Your task to perform on an android device: open app "Grab" Image 0: 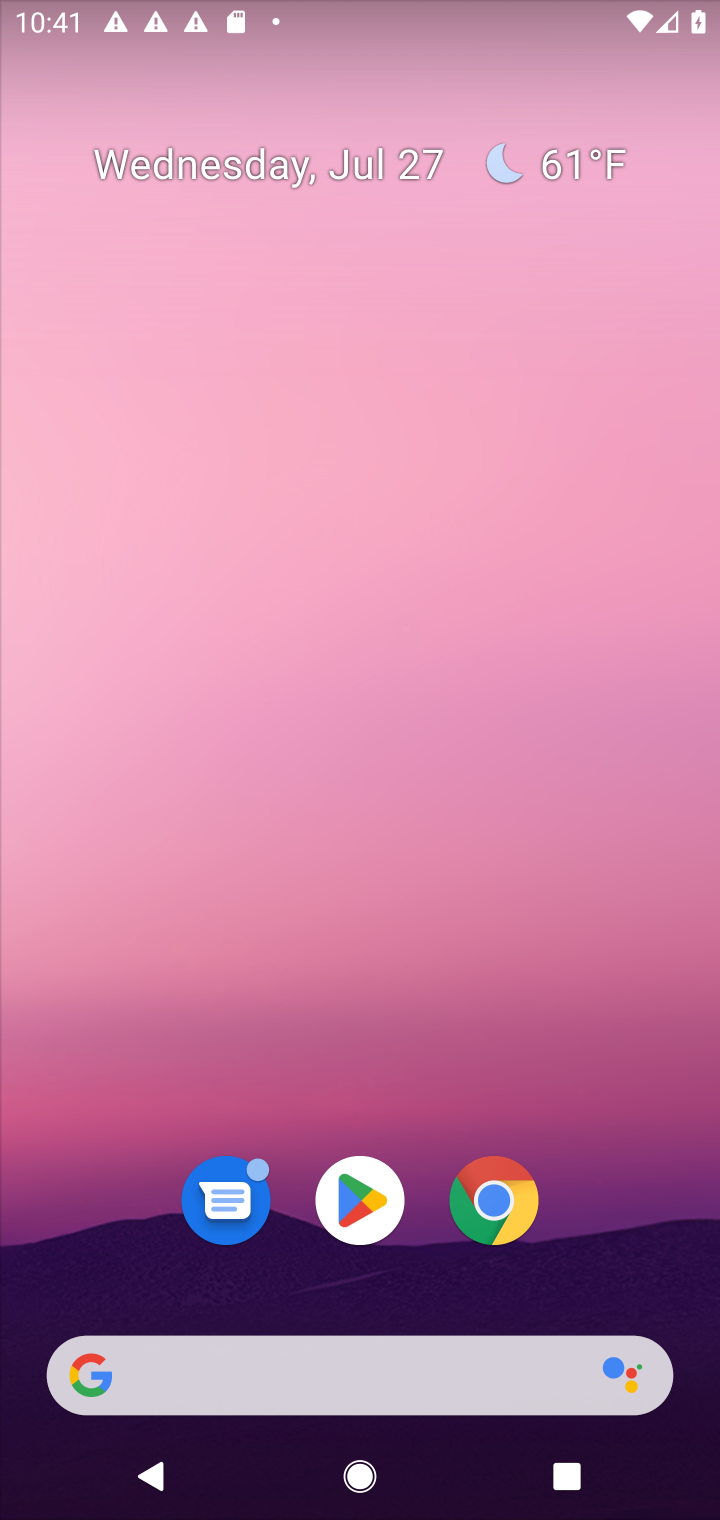
Step 0: click (340, 1197)
Your task to perform on an android device: open app "Grab" Image 1: 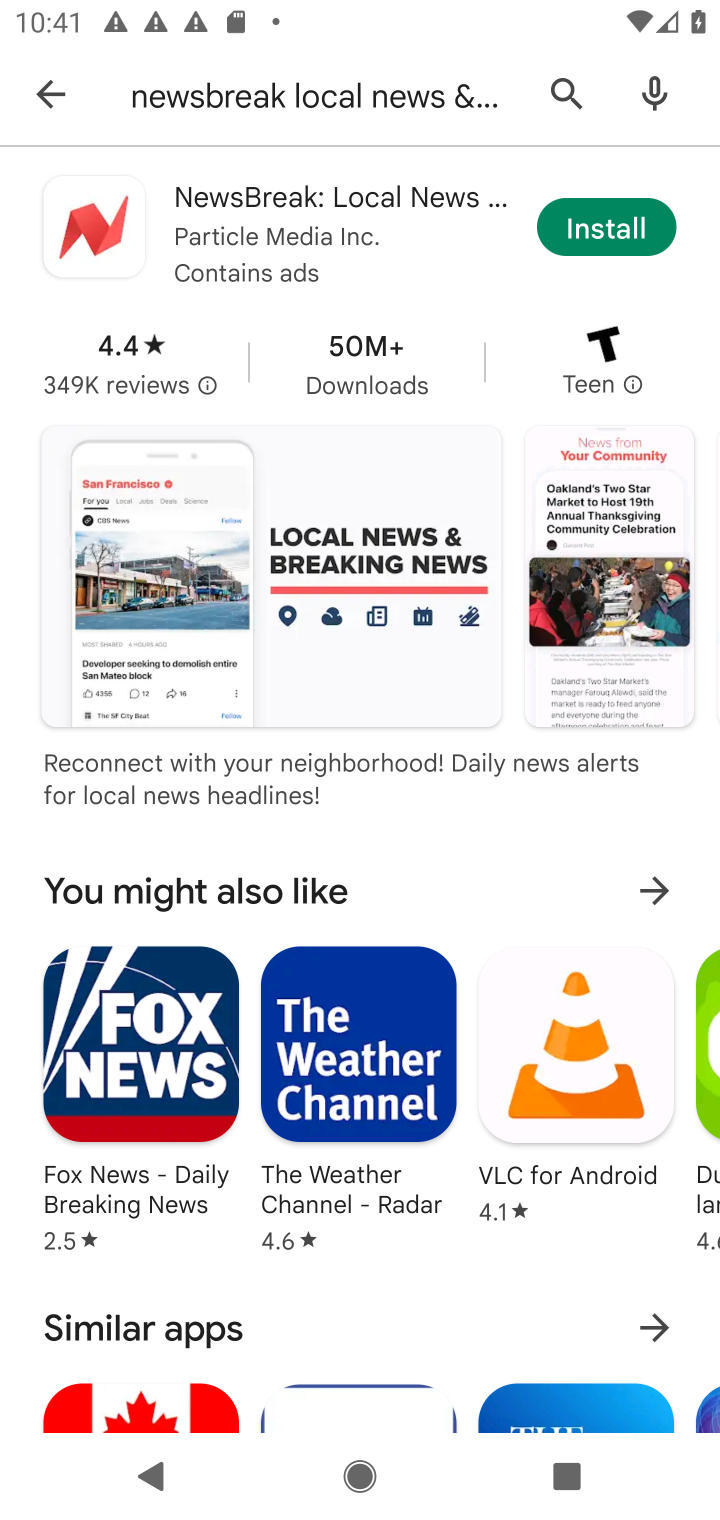
Step 1: click (549, 91)
Your task to perform on an android device: open app "Grab" Image 2: 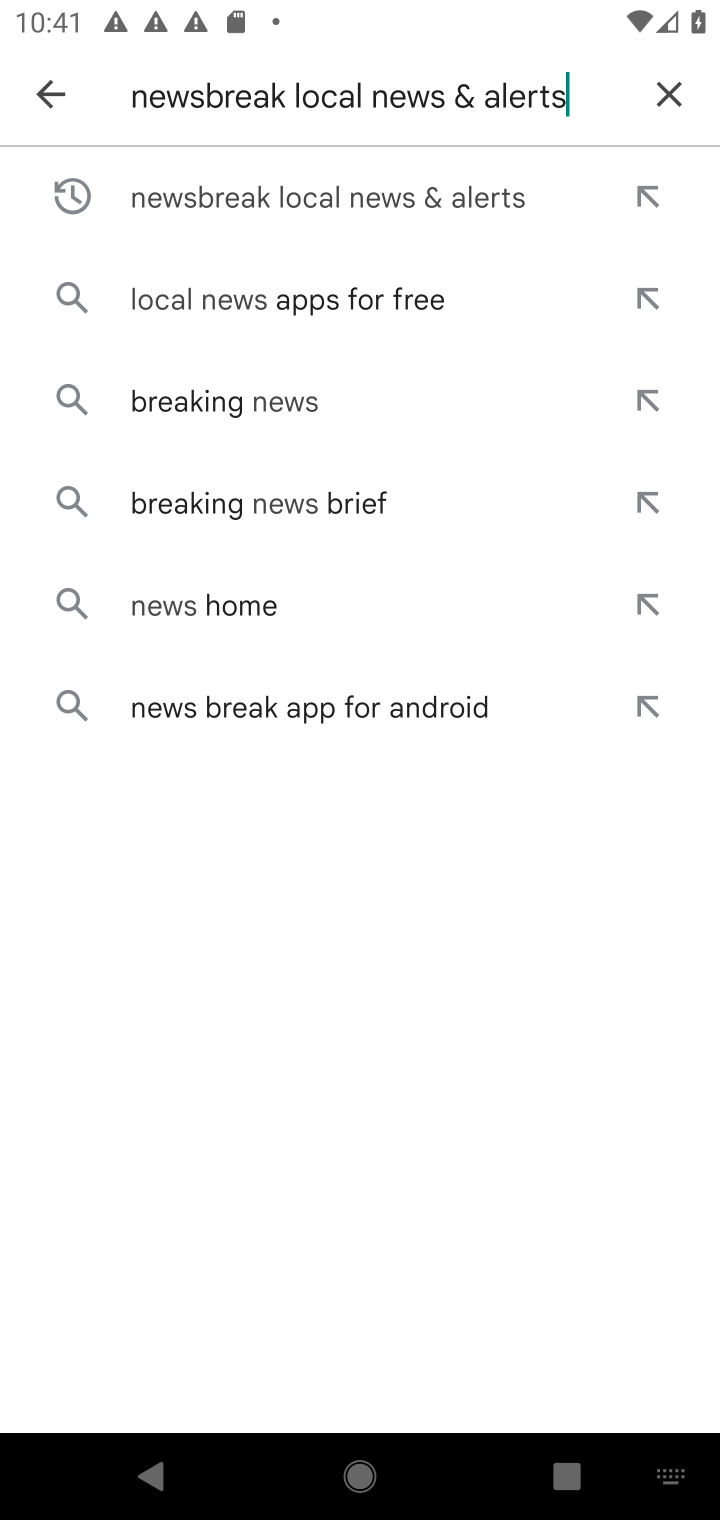
Step 2: click (679, 87)
Your task to perform on an android device: open app "Grab" Image 3: 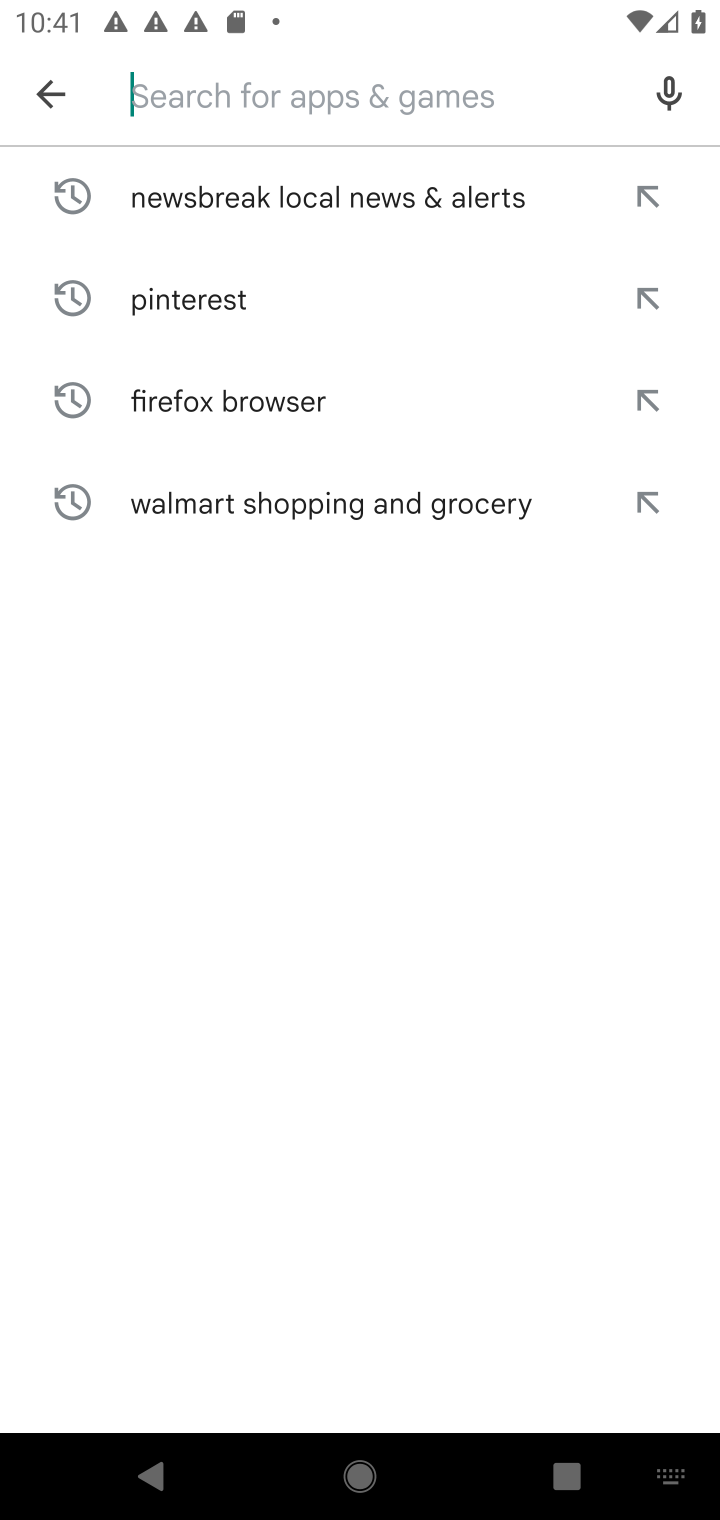
Step 3: click (344, 75)
Your task to perform on an android device: open app "Grab" Image 4: 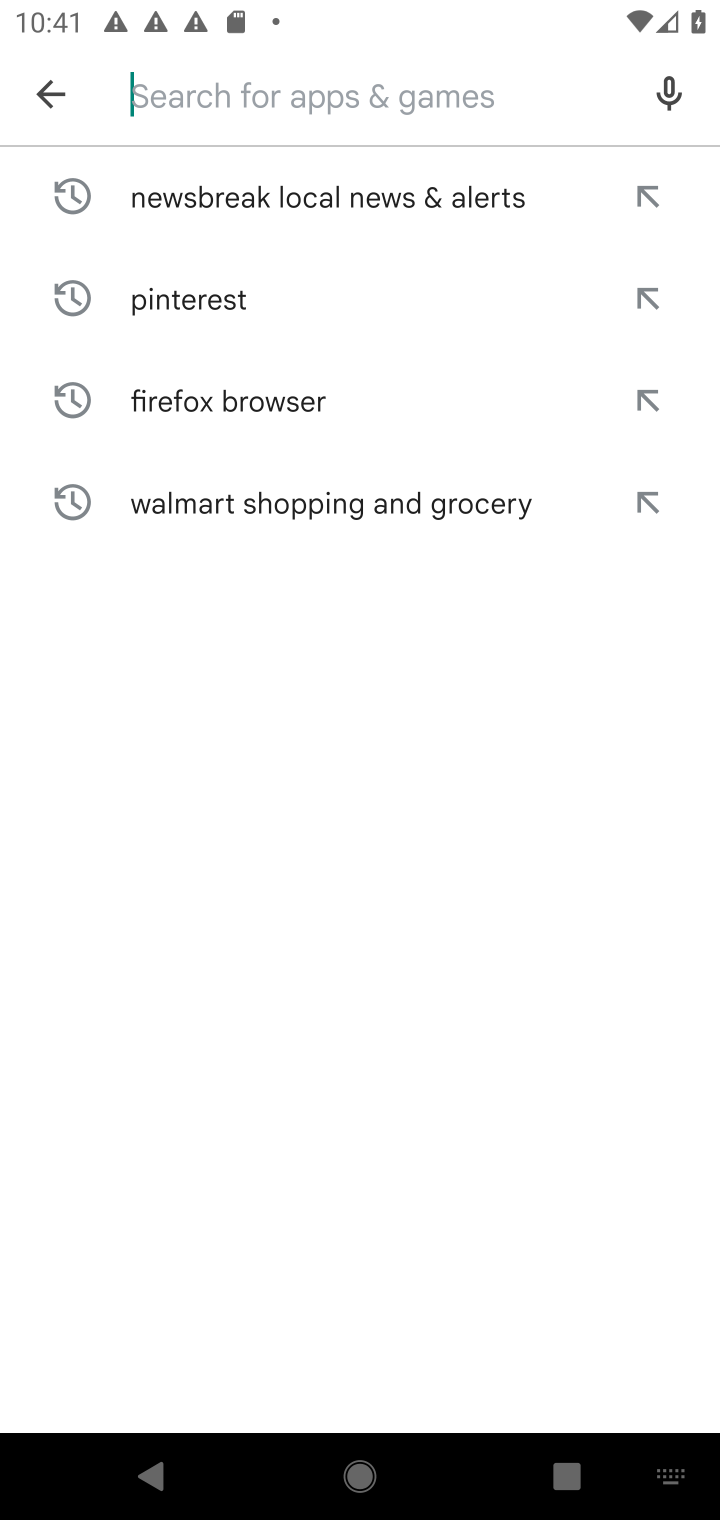
Step 4: type "crab"
Your task to perform on an android device: open app "Grab" Image 5: 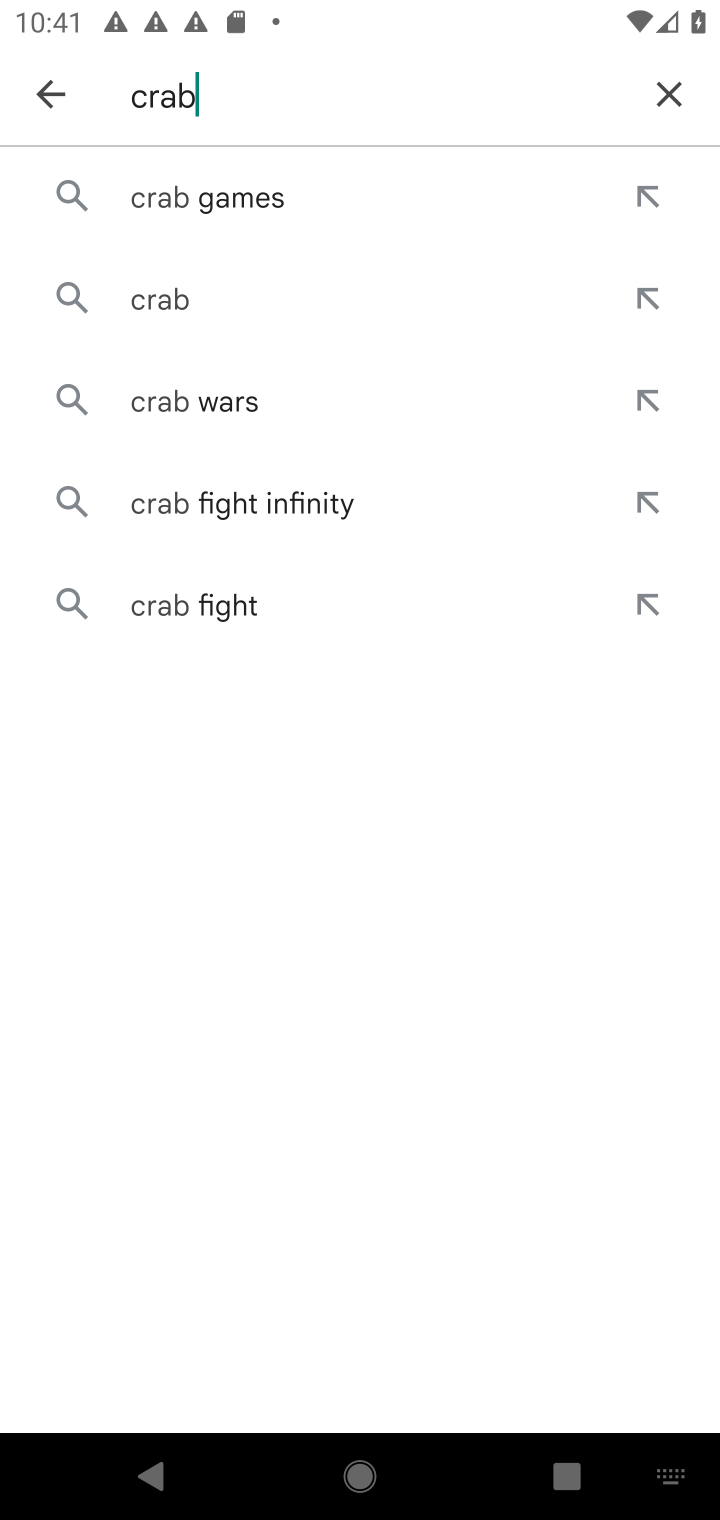
Step 5: click (157, 279)
Your task to perform on an android device: open app "Grab" Image 6: 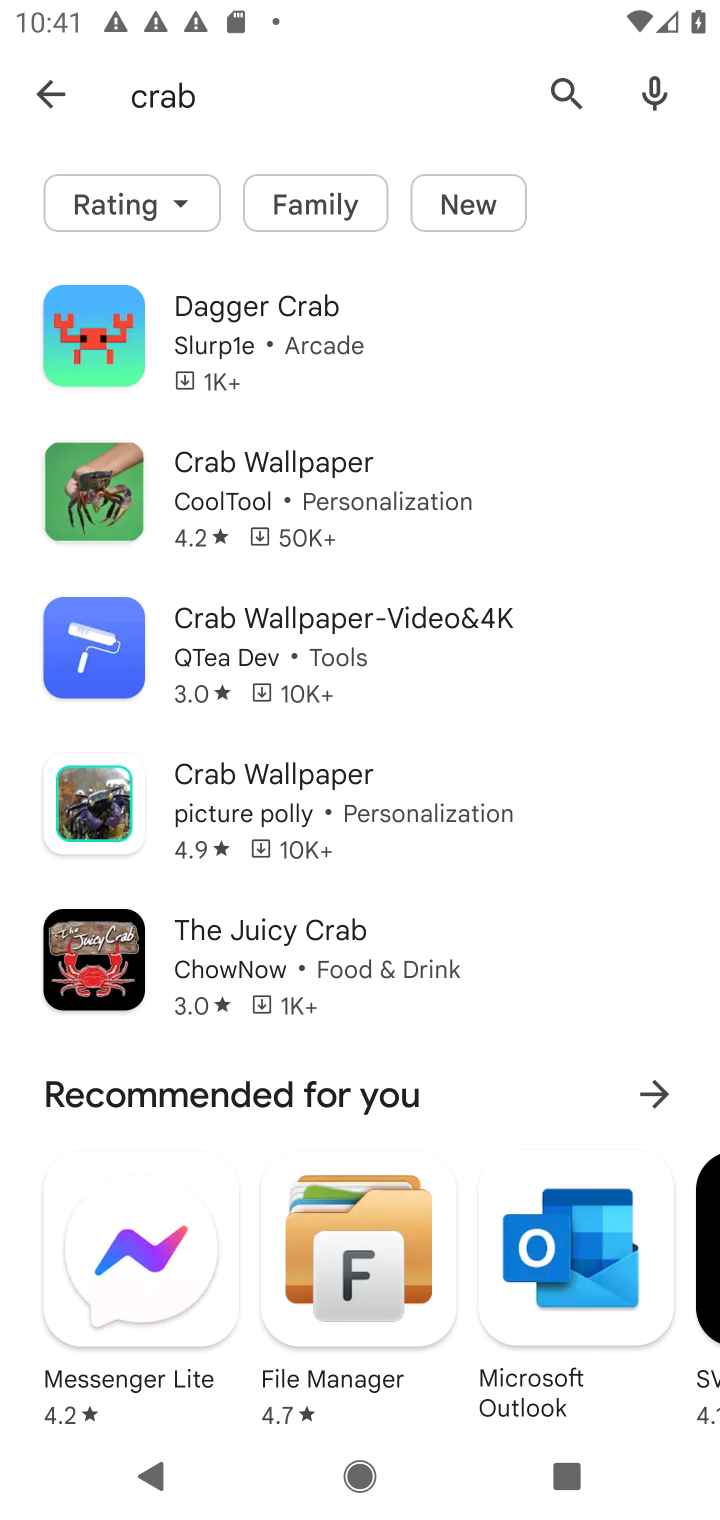
Step 6: click (262, 336)
Your task to perform on an android device: open app "Grab" Image 7: 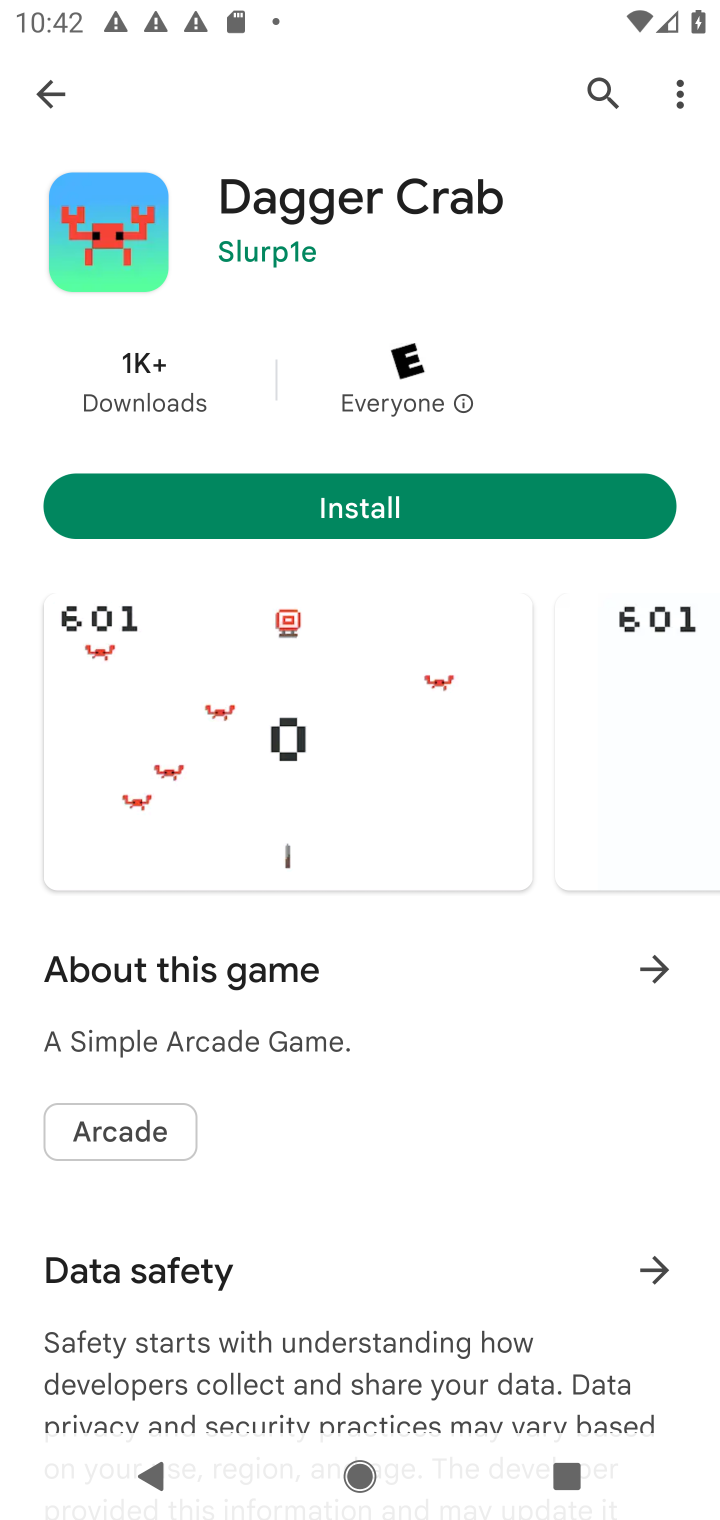
Step 7: task complete